Your task to perform on an android device: manage bookmarks in the chrome app Image 0: 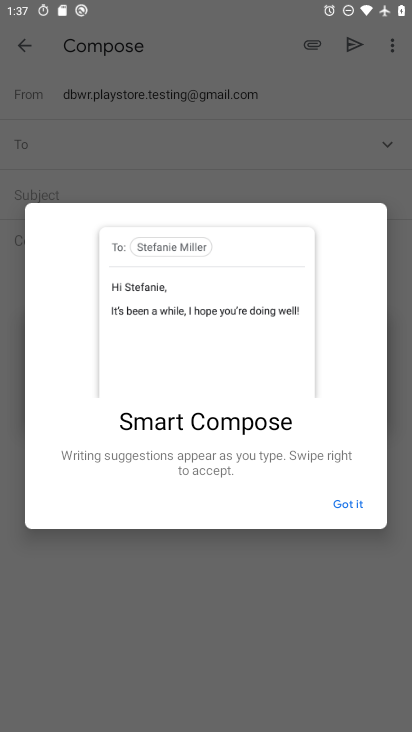
Step 0: press home button
Your task to perform on an android device: manage bookmarks in the chrome app Image 1: 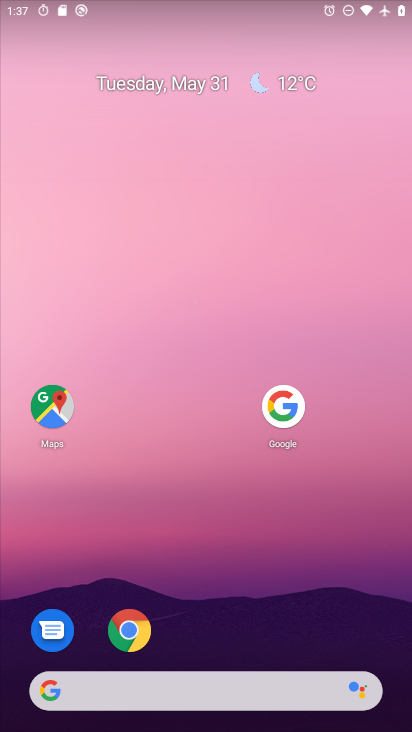
Step 1: click (131, 636)
Your task to perform on an android device: manage bookmarks in the chrome app Image 2: 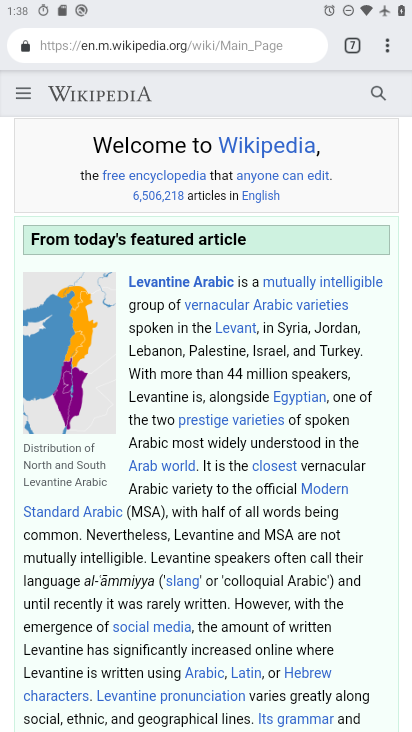
Step 2: drag from (387, 47) to (268, 224)
Your task to perform on an android device: manage bookmarks in the chrome app Image 3: 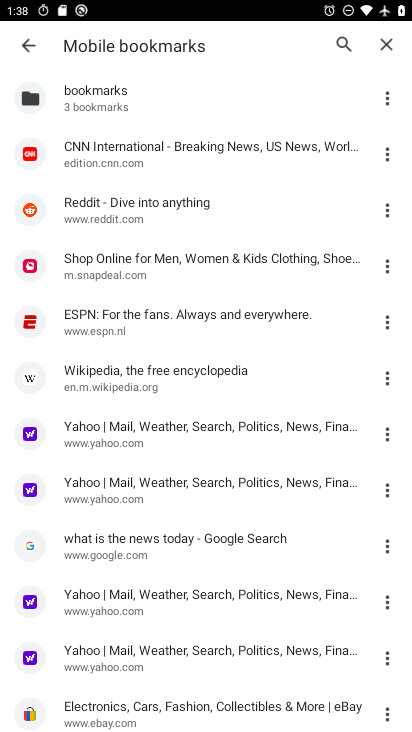
Step 3: click (389, 151)
Your task to perform on an android device: manage bookmarks in the chrome app Image 4: 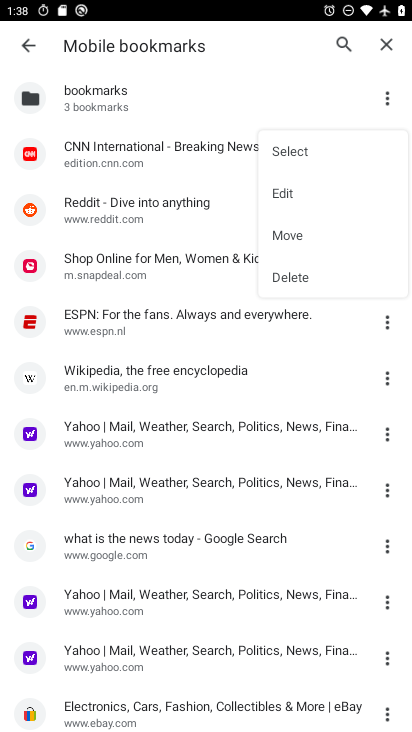
Step 4: click (298, 234)
Your task to perform on an android device: manage bookmarks in the chrome app Image 5: 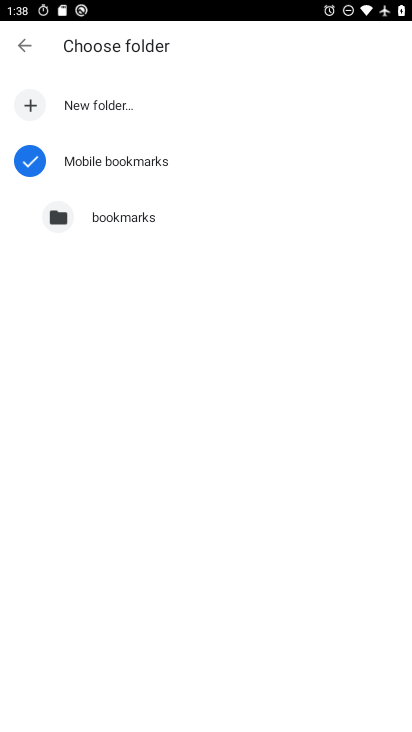
Step 5: click (132, 218)
Your task to perform on an android device: manage bookmarks in the chrome app Image 6: 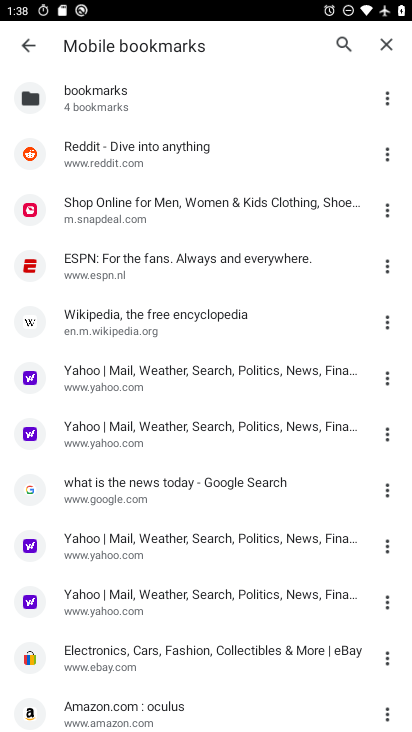
Step 6: task complete